Your task to perform on an android device: check android version Image 0: 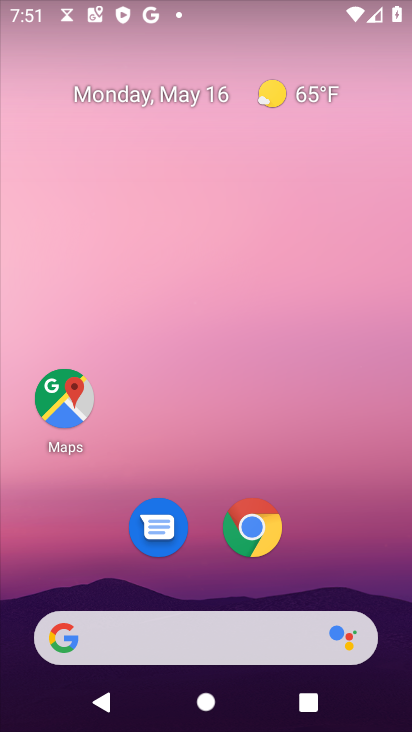
Step 0: drag from (309, 557) to (308, 209)
Your task to perform on an android device: check android version Image 1: 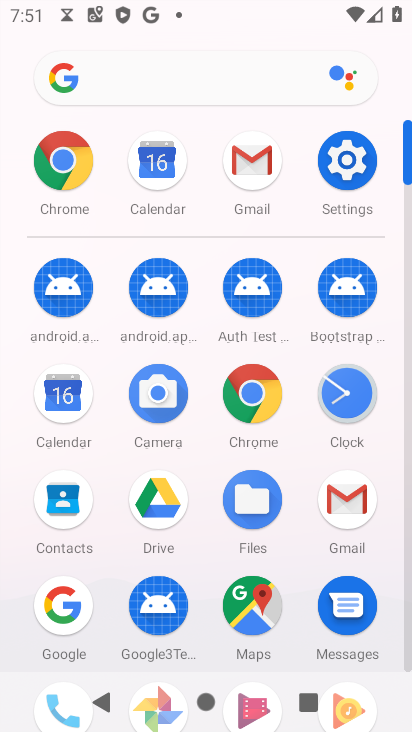
Step 1: click (346, 158)
Your task to perform on an android device: check android version Image 2: 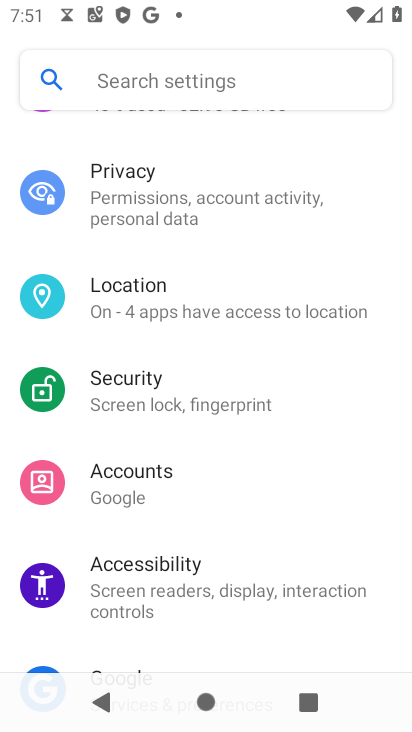
Step 2: drag from (247, 609) to (287, 202)
Your task to perform on an android device: check android version Image 3: 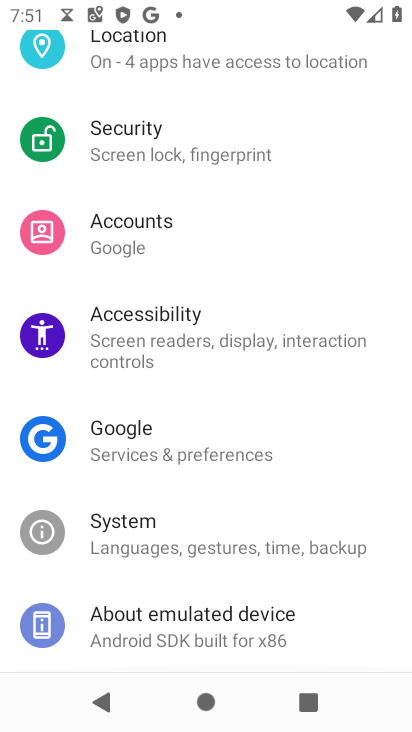
Step 3: drag from (206, 627) to (224, 574)
Your task to perform on an android device: check android version Image 4: 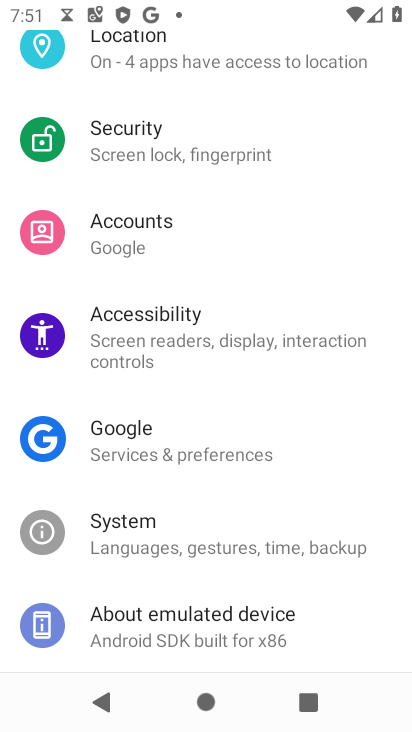
Step 4: click (212, 591)
Your task to perform on an android device: check android version Image 5: 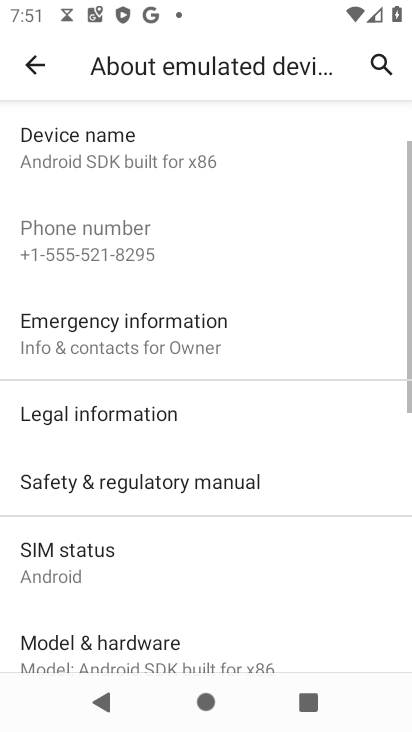
Step 5: drag from (162, 584) to (294, 171)
Your task to perform on an android device: check android version Image 6: 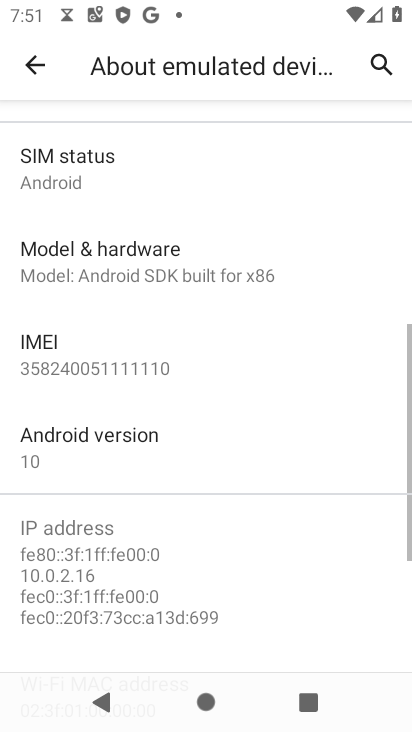
Step 6: click (56, 434)
Your task to perform on an android device: check android version Image 7: 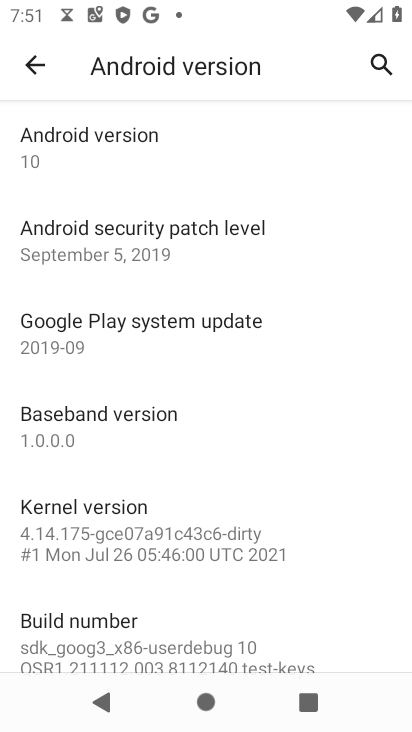
Step 7: task complete